Your task to perform on an android device: Show me productivity apps on the Play Store Image 0: 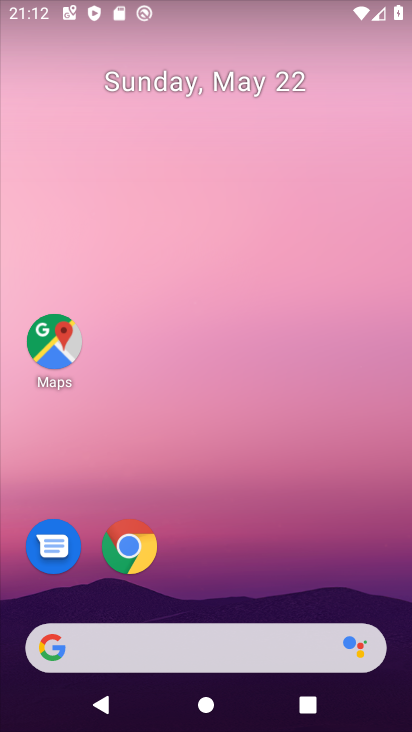
Step 0: drag from (171, 594) to (170, 218)
Your task to perform on an android device: Show me productivity apps on the Play Store Image 1: 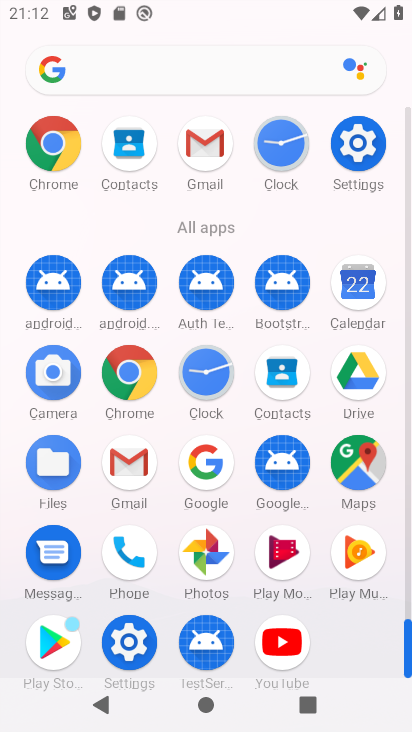
Step 1: click (58, 638)
Your task to perform on an android device: Show me productivity apps on the Play Store Image 2: 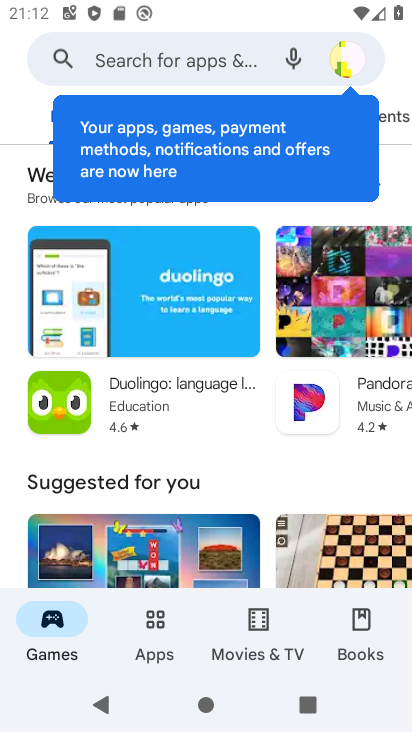
Step 2: task complete